Your task to perform on an android device: Open network settings Image 0: 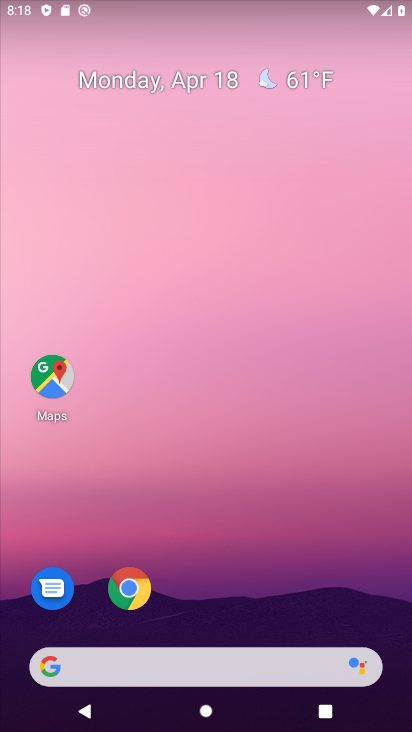
Step 0: drag from (247, 599) to (268, 3)
Your task to perform on an android device: Open network settings Image 1: 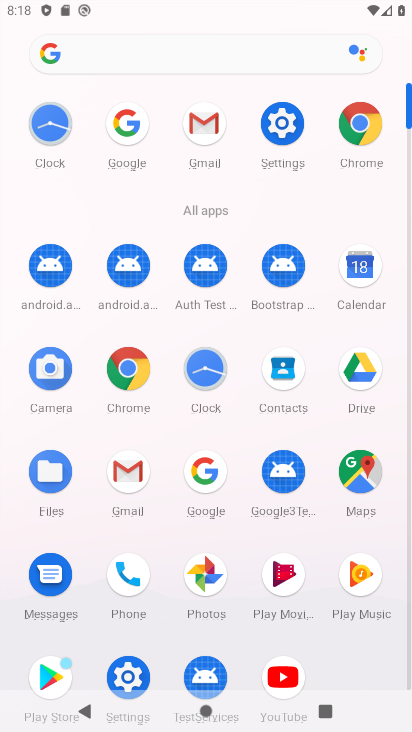
Step 1: click (286, 126)
Your task to perform on an android device: Open network settings Image 2: 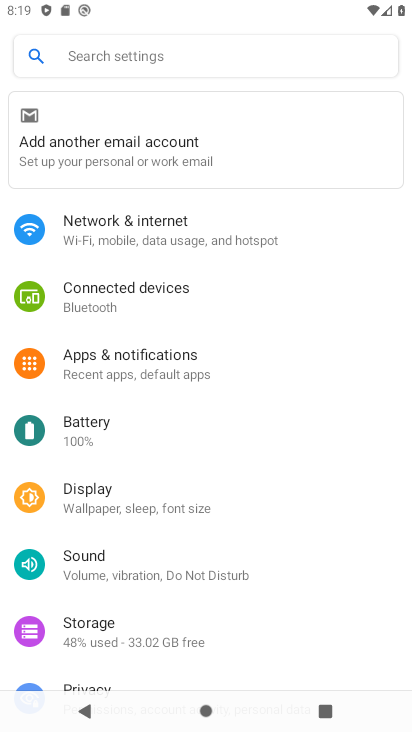
Step 2: click (111, 225)
Your task to perform on an android device: Open network settings Image 3: 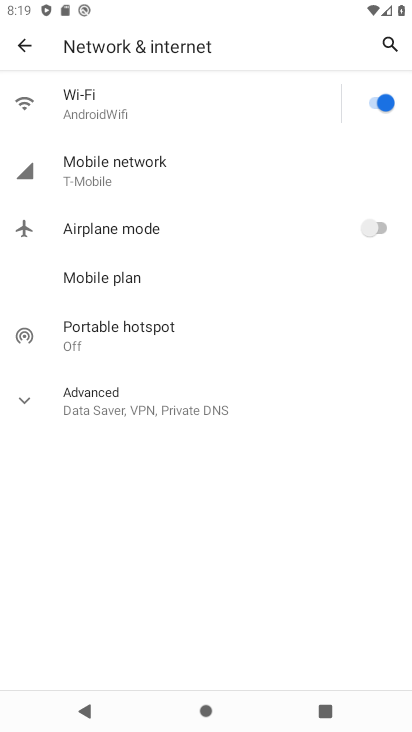
Step 3: click (113, 165)
Your task to perform on an android device: Open network settings Image 4: 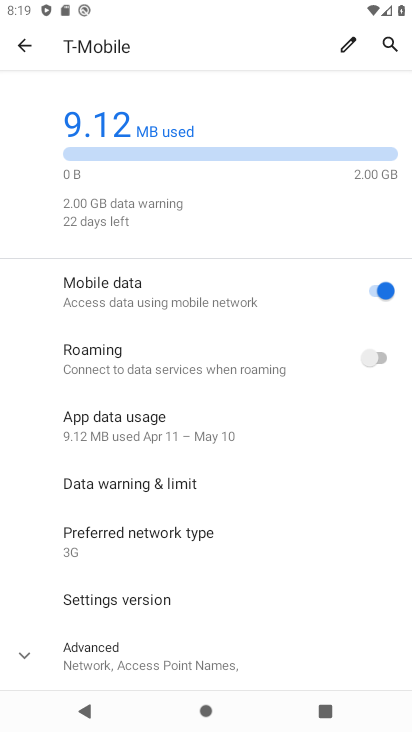
Step 4: task complete